Your task to perform on an android device: delete the emails in spam in the gmail app Image 0: 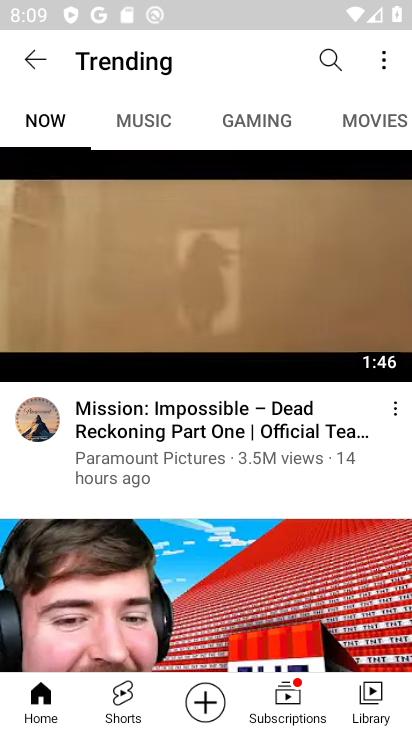
Step 0: click (27, 53)
Your task to perform on an android device: delete the emails in spam in the gmail app Image 1: 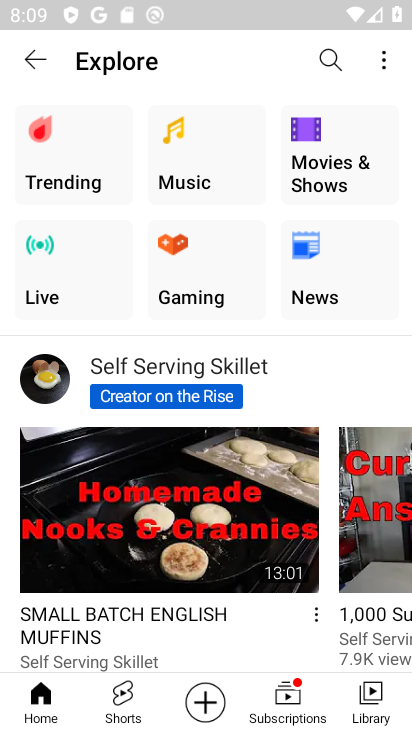
Step 1: press home button
Your task to perform on an android device: delete the emails in spam in the gmail app Image 2: 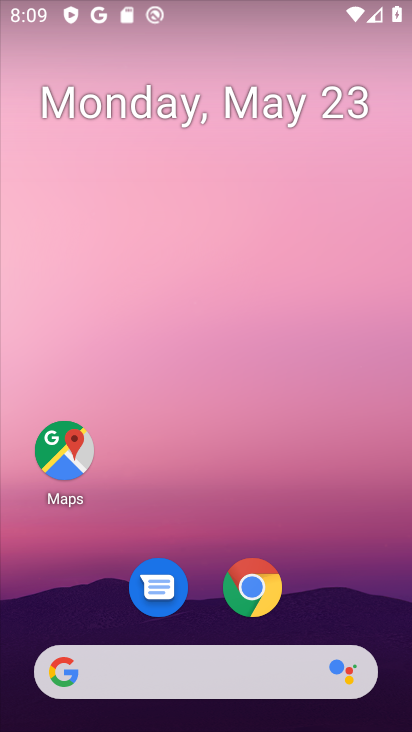
Step 2: drag from (186, 641) to (270, 64)
Your task to perform on an android device: delete the emails in spam in the gmail app Image 3: 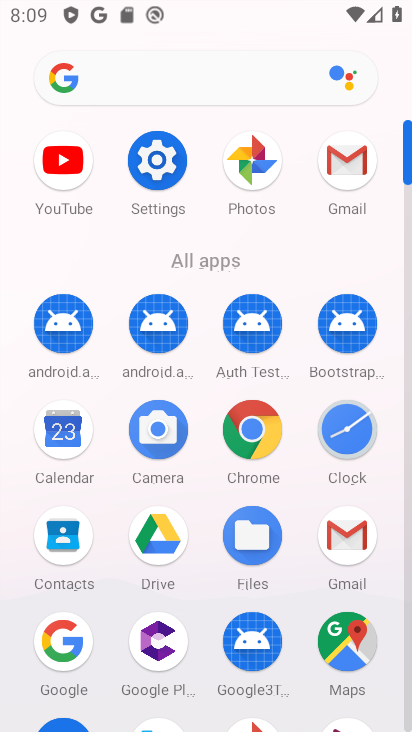
Step 3: click (342, 155)
Your task to perform on an android device: delete the emails in spam in the gmail app Image 4: 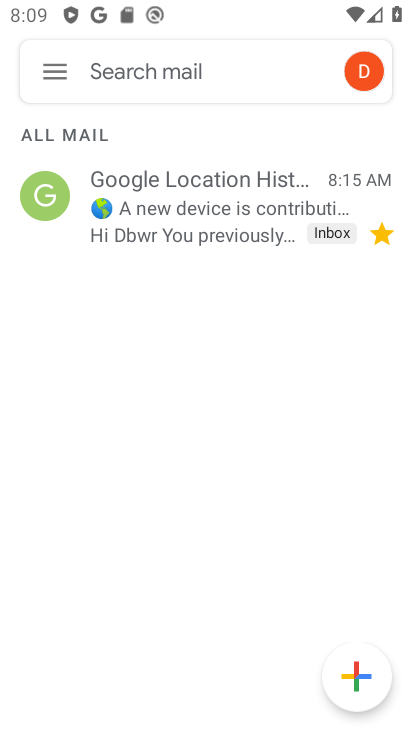
Step 4: click (43, 57)
Your task to perform on an android device: delete the emails in spam in the gmail app Image 5: 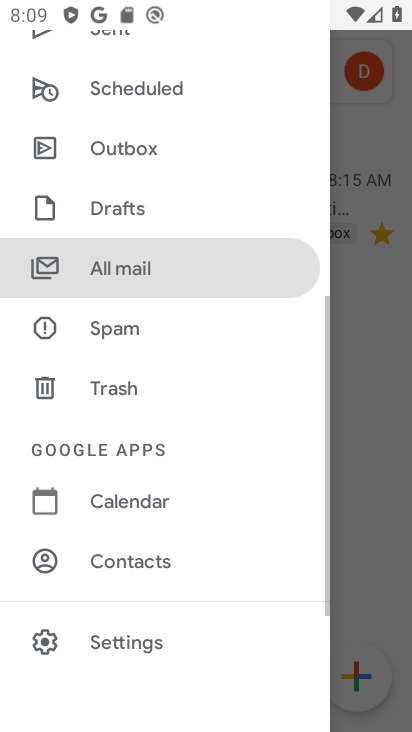
Step 5: click (91, 325)
Your task to perform on an android device: delete the emails in spam in the gmail app Image 6: 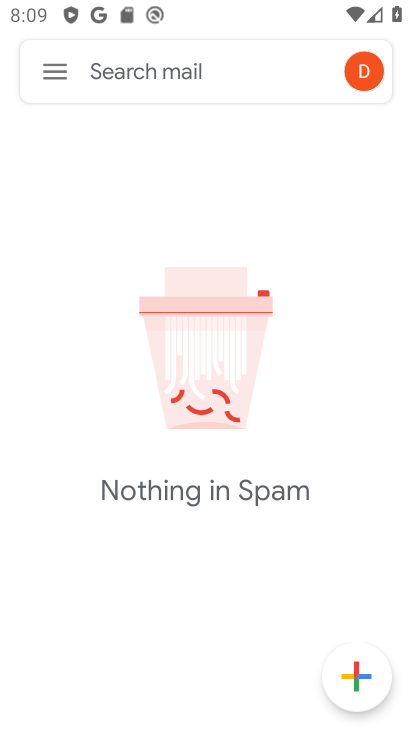
Step 6: task complete